Your task to perform on an android device: Toggle the flashlight Image 0: 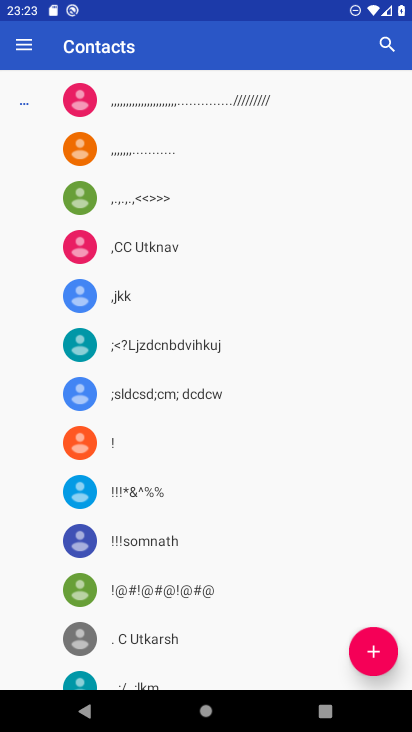
Step 0: press home button
Your task to perform on an android device: Toggle the flashlight Image 1: 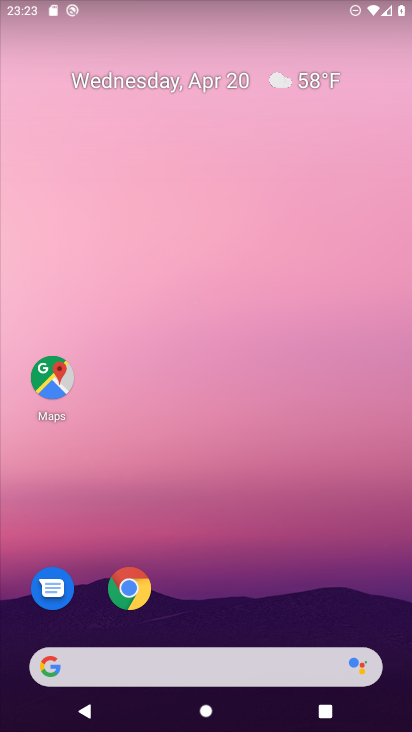
Step 1: drag from (228, 716) to (200, 182)
Your task to perform on an android device: Toggle the flashlight Image 2: 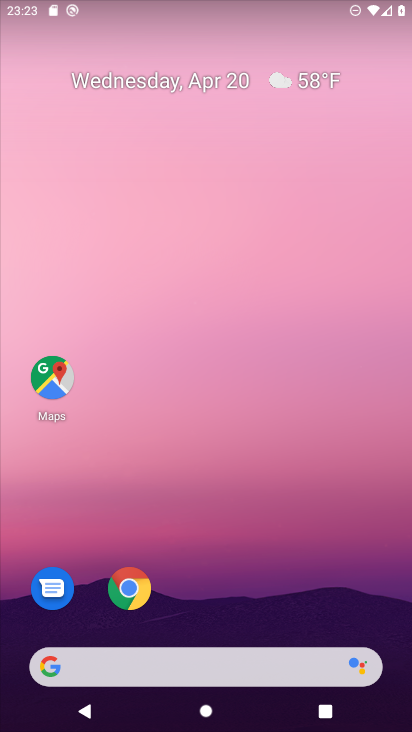
Step 2: drag from (239, 543) to (237, 80)
Your task to perform on an android device: Toggle the flashlight Image 3: 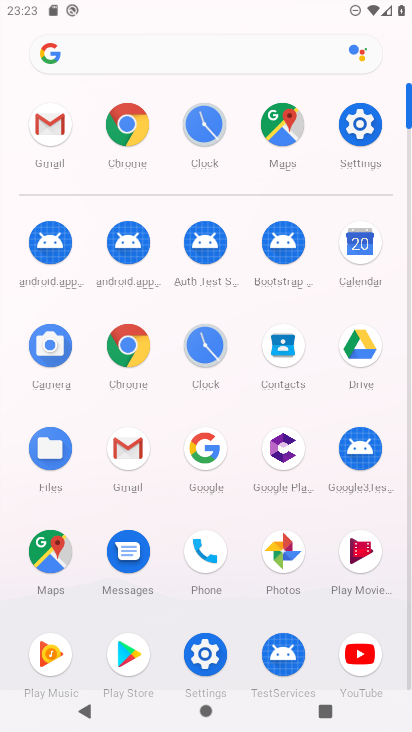
Step 3: click (354, 130)
Your task to perform on an android device: Toggle the flashlight Image 4: 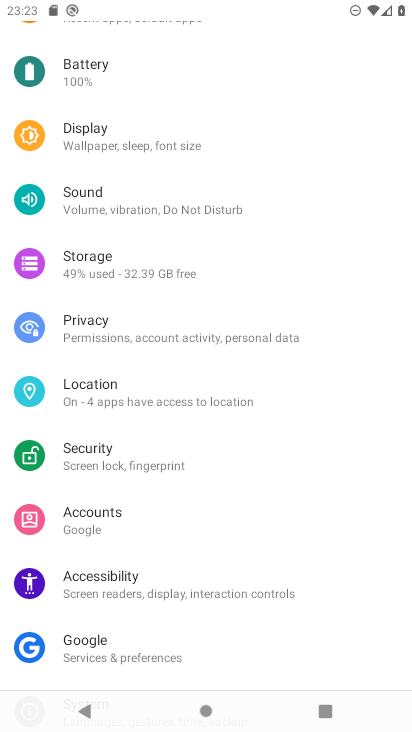
Step 4: task complete